Your task to perform on an android device: What is the capital of Sweden? Image 0: 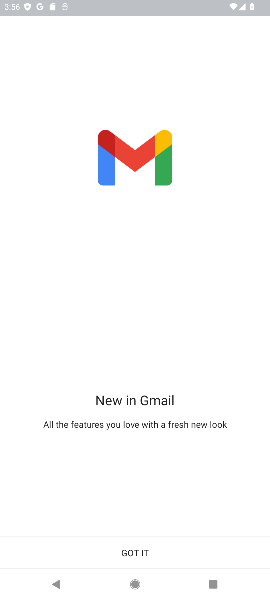
Step 0: press home button
Your task to perform on an android device: What is the capital of Sweden? Image 1: 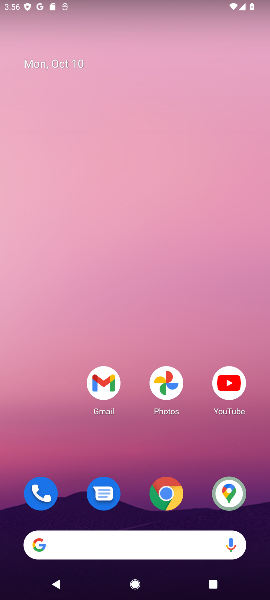
Step 1: click (83, 538)
Your task to perform on an android device: What is the capital of Sweden? Image 2: 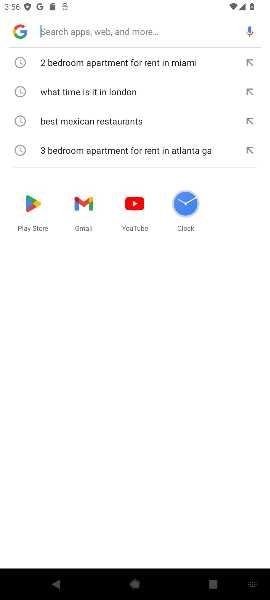
Step 2: type "What is the capital of Sweden?"
Your task to perform on an android device: What is the capital of Sweden? Image 3: 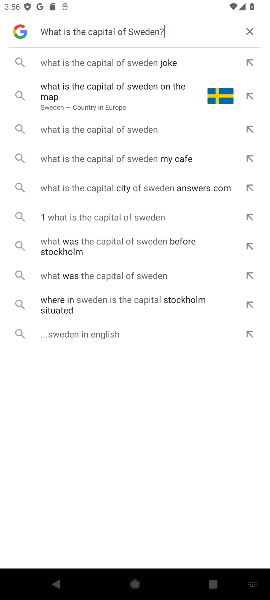
Step 3: click (114, 59)
Your task to perform on an android device: What is the capital of Sweden? Image 4: 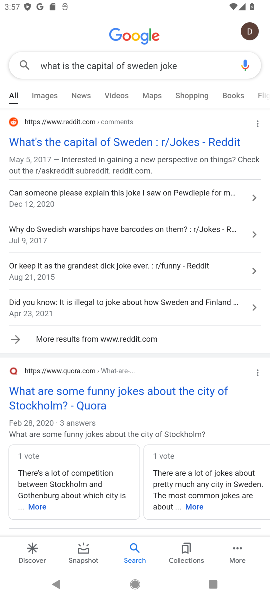
Step 4: click (126, 144)
Your task to perform on an android device: What is the capital of Sweden? Image 5: 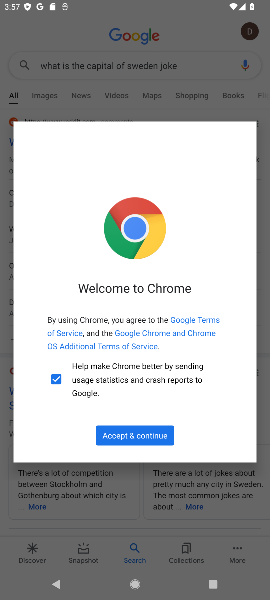
Step 5: task complete